Your task to perform on an android device: read, delete, or share a saved page in the chrome app Image 0: 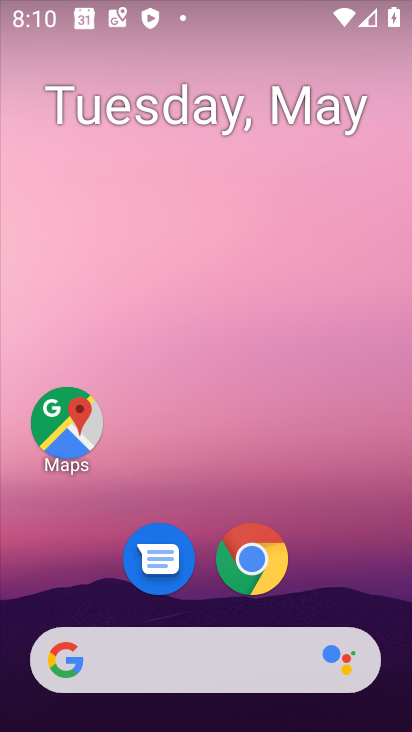
Step 0: drag from (338, 580) to (233, 67)
Your task to perform on an android device: read, delete, or share a saved page in the chrome app Image 1: 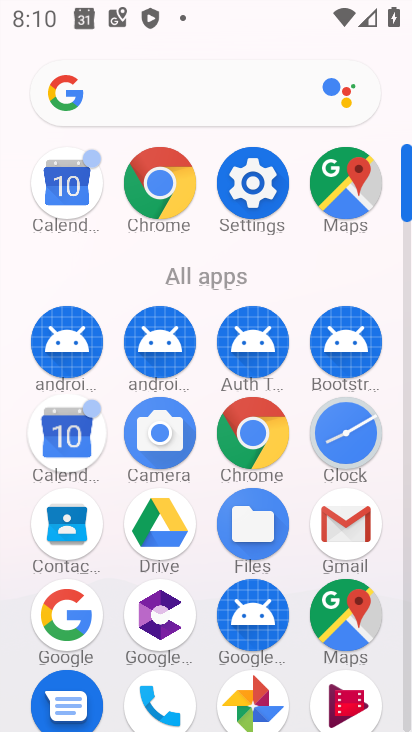
Step 1: click (246, 442)
Your task to perform on an android device: read, delete, or share a saved page in the chrome app Image 2: 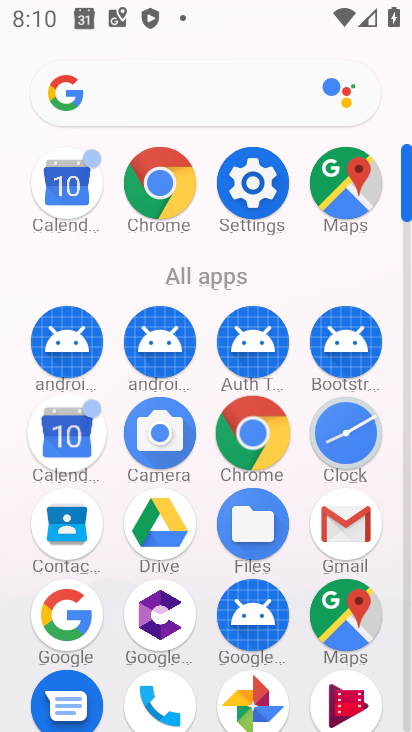
Step 2: click (251, 433)
Your task to perform on an android device: read, delete, or share a saved page in the chrome app Image 3: 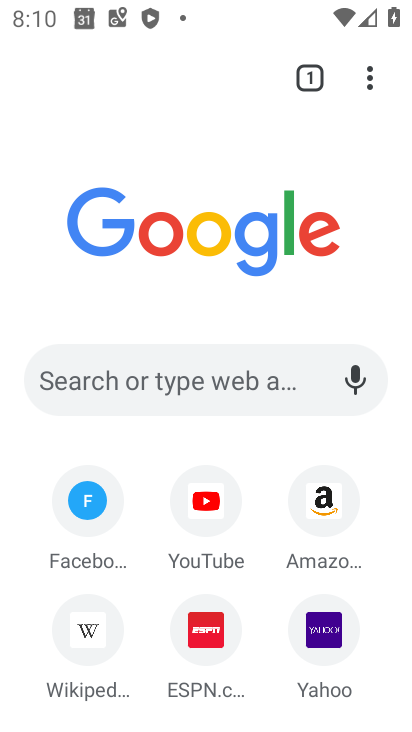
Step 3: drag from (363, 79) to (128, 515)
Your task to perform on an android device: read, delete, or share a saved page in the chrome app Image 4: 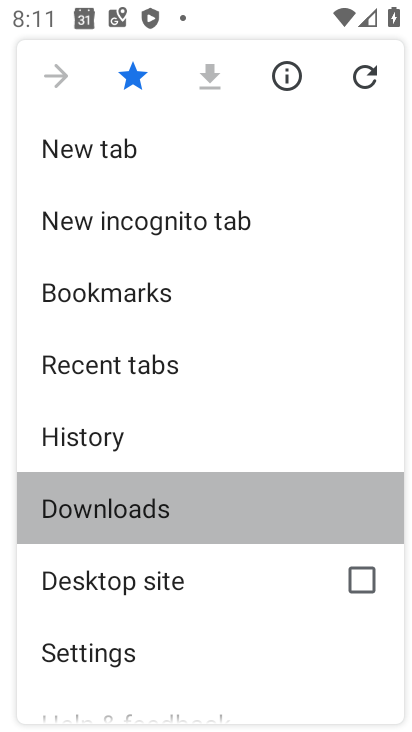
Step 4: click (127, 516)
Your task to perform on an android device: read, delete, or share a saved page in the chrome app Image 5: 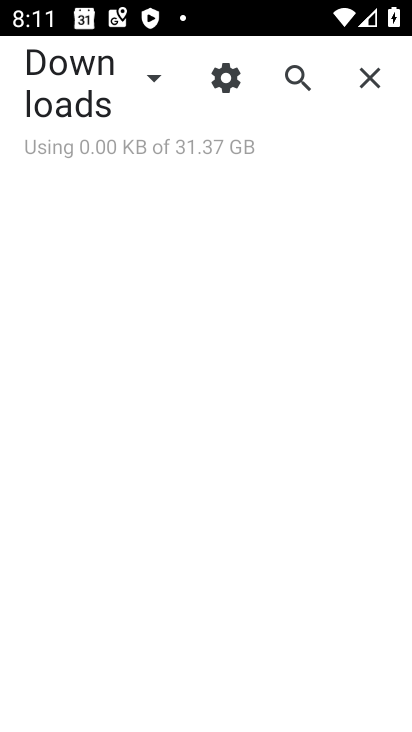
Step 5: click (154, 79)
Your task to perform on an android device: read, delete, or share a saved page in the chrome app Image 6: 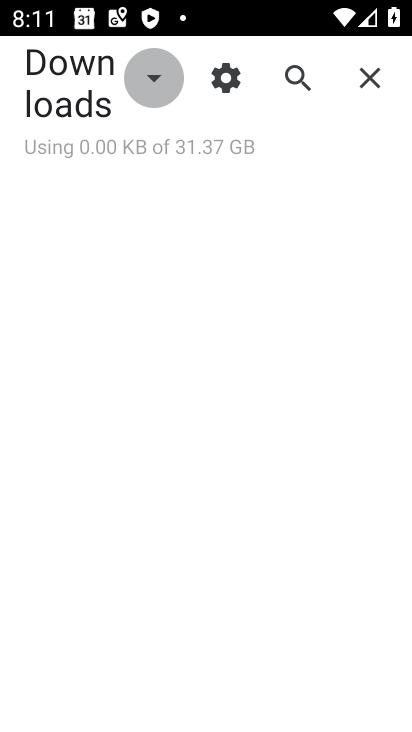
Step 6: click (153, 80)
Your task to perform on an android device: read, delete, or share a saved page in the chrome app Image 7: 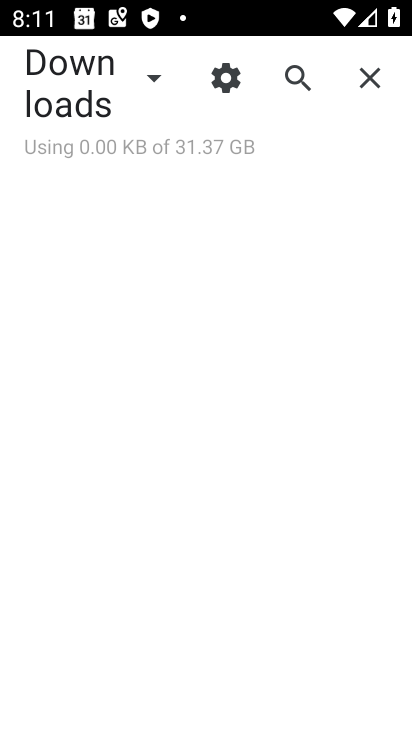
Step 7: click (157, 78)
Your task to perform on an android device: read, delete, or share a saved page in the chrome app Image 8: 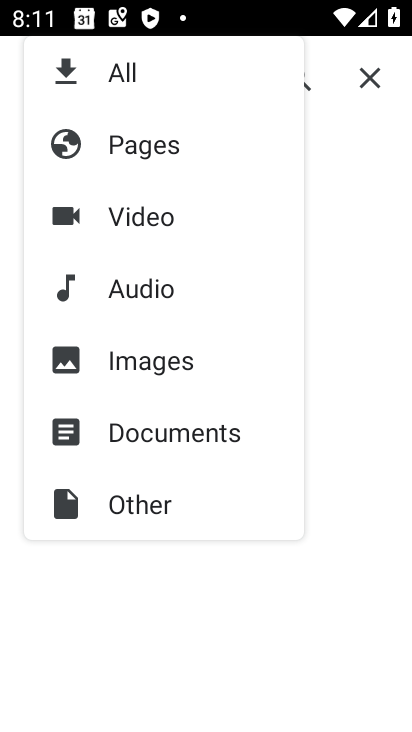
Step 8: click (137, 142)
Your task to perform on an android device: read, delete, or share a saved page in the chrome app Image 9: 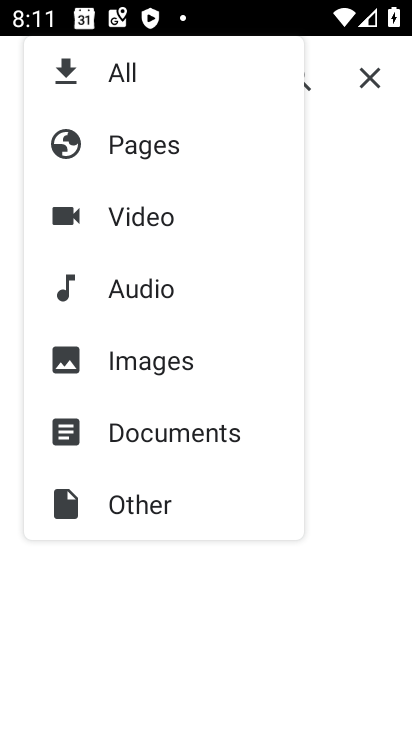
Step 9: click (138, 143)
Your task to perform on an android device: read, delete, or share a saved page in the chrome app Image 10: 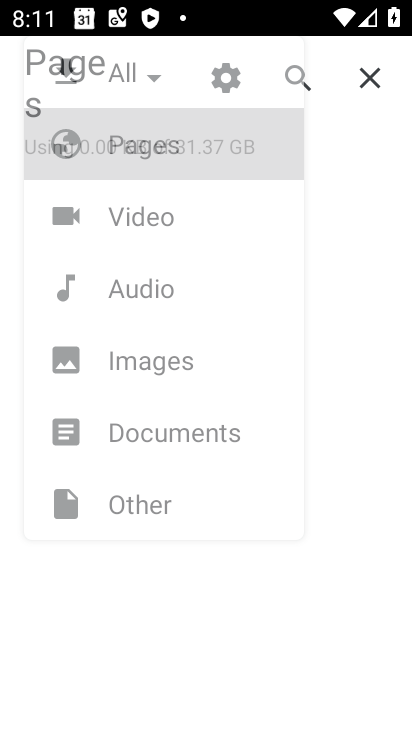
Step 10: click (142, 141)
Your task to perform on an android device: read, delete, or share a saved page in the chrome app Image 11: 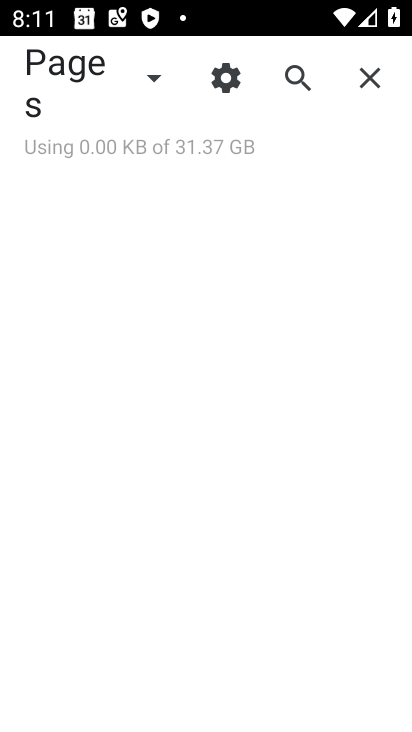
Step 11: task complete